Your task to perform on an android device: toggle airplane mode Image 0: 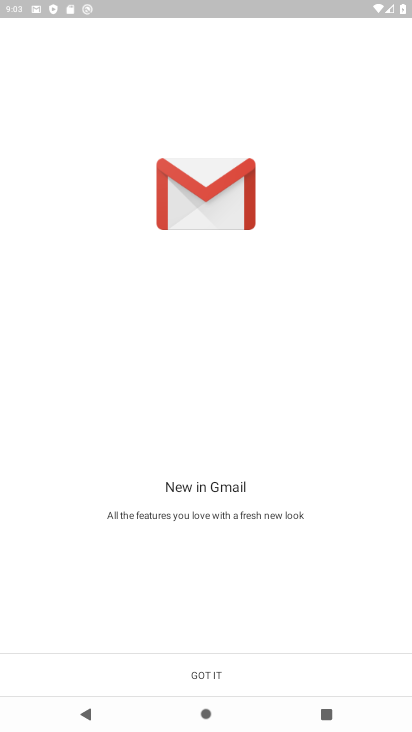
Step 0: press home button
Your task to perform on an android device: toggle airplane mode Image 1: 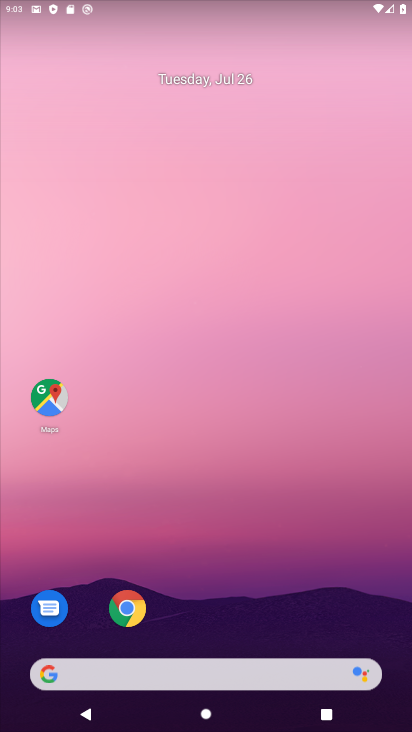
Step 1: drag from (204, 609) to (230, 165)
Your task to perform on an android device: toggle airplane mode Image 2: 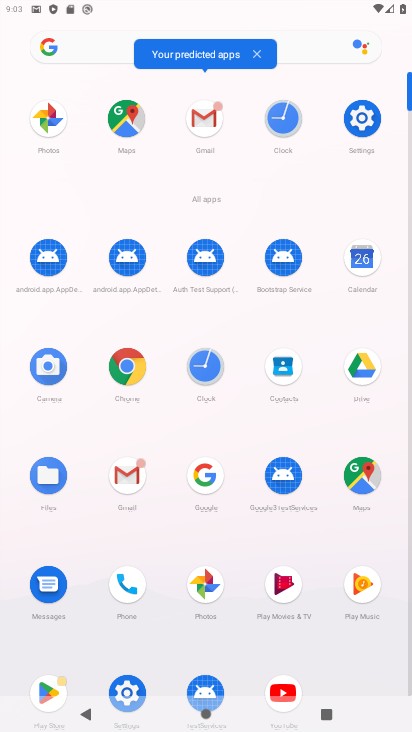
Step 2: click (358, 122)
Your task to perform on an android device: toggle airplane mode Image 3: 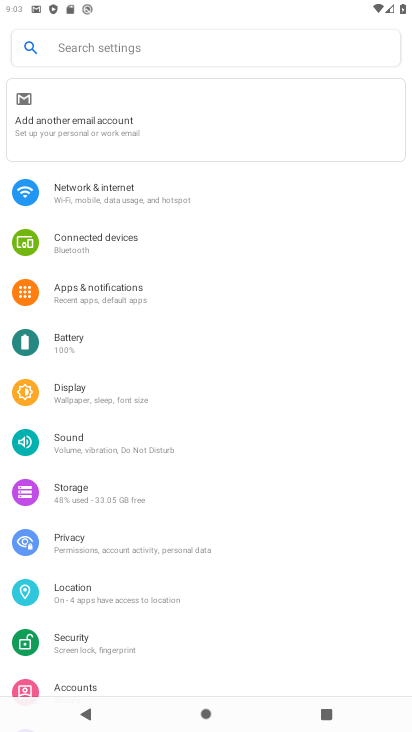
Step 3: click (124, 195)
Your task to perform on an android device: toggle airplane mode Image 4: 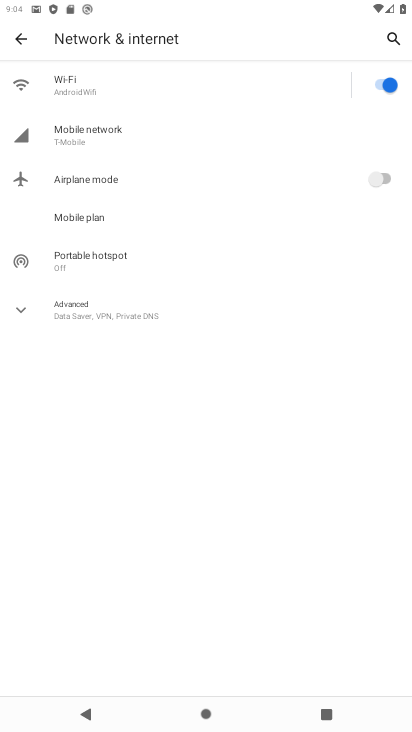
Step 4: click (392, 173)
Your task to perform on an android device: toggle airplane mode Image 5: 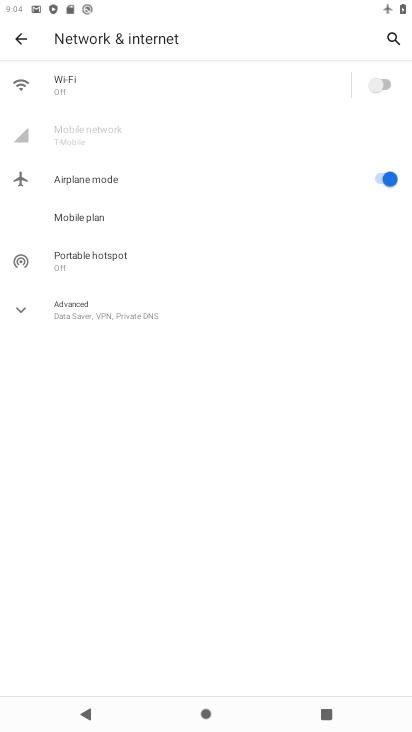
Step 5: task complete